Your task to perform on an android device: Open eBay Image 0: 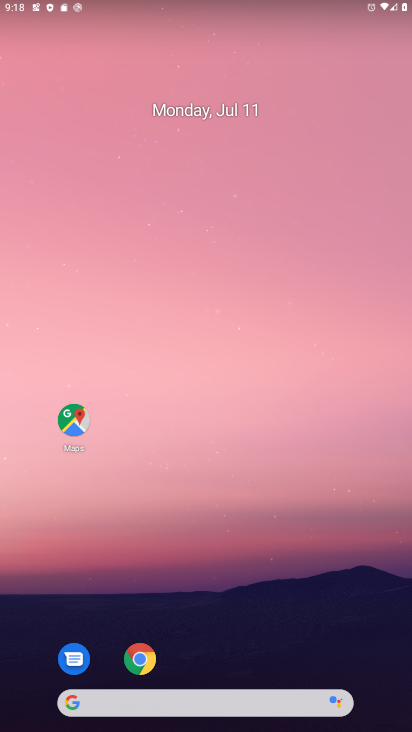
Step 0: click (179, 709)
Your task to perform on an android device: Open eBay Image 1: 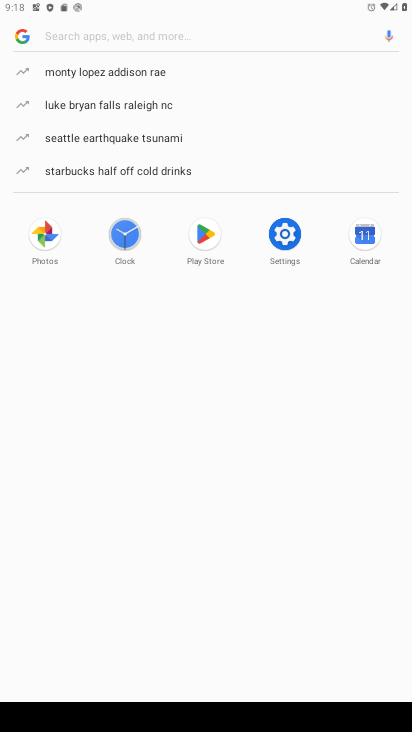
Step 1: type "ebay"
Your task to perform on an android device: Open eBay Image 2: 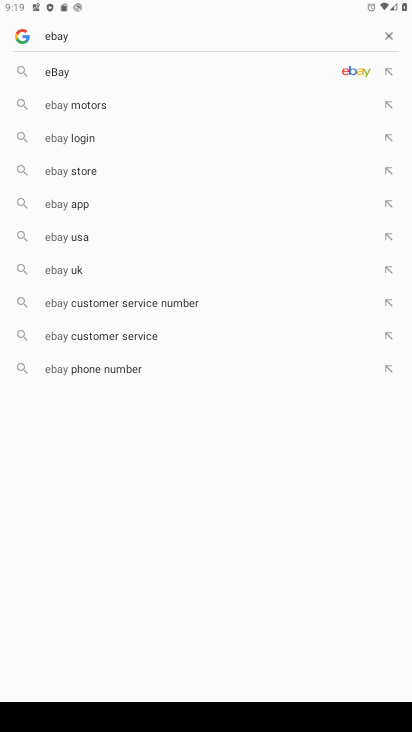
Step 2: click (80, 68)
Your task to perform on an android device: Open eBay Image 3: 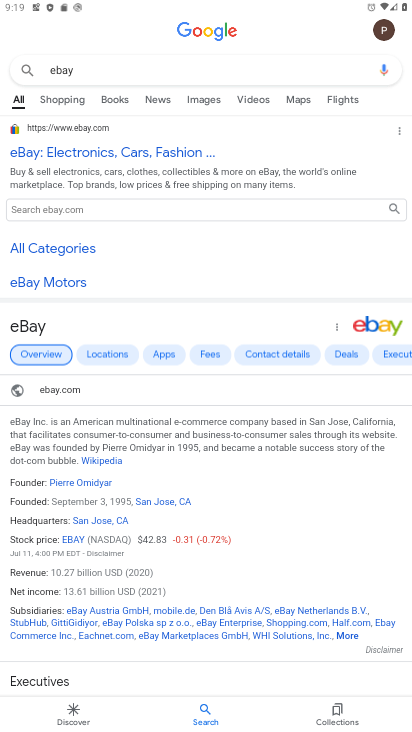
Step 3: task complete